Your task to perform on an android device: change timer sound Image 0: 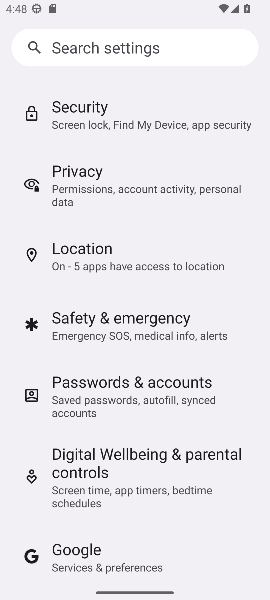
Step 0: press home button
Your task to perform on an android device: change timer sound Image 1: 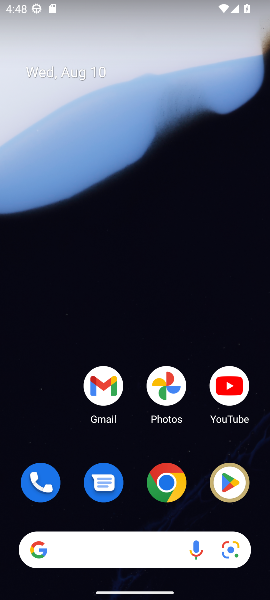
Step 1: drag from (48, 406) to (105, 27)
Your task to perform on an android device: change timer sound Image 2: 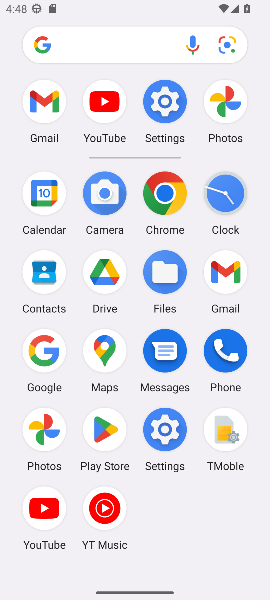
Step 2: click (228, 196)
Your task to perform on an android device: change timer sound Image 3: 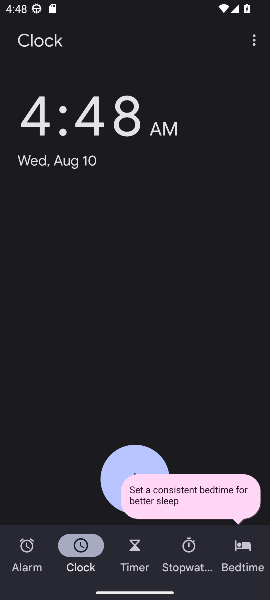
Step 3: click (256, 47)
Your task to perform on an android device: change timer sound Image 4: 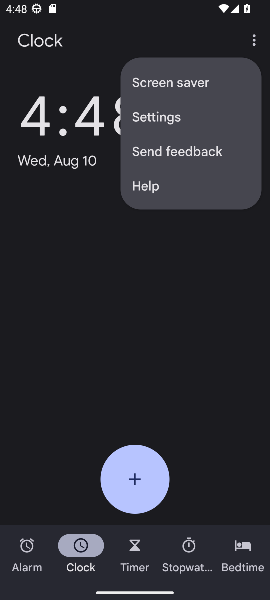
Step 4: click (184, 118)
Your task to perform on an android device: change timer sound Image 5: 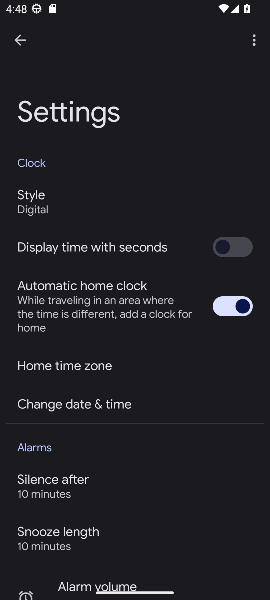
Step 5: drag from (116, 481) to (167, 57)
Your task to perform on an android device: change timer sound Image 6: 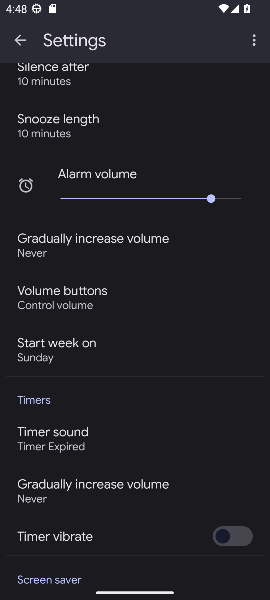
Step 6: click (65, 439)
Your task to perform on an android device: change timer sound Image 7: 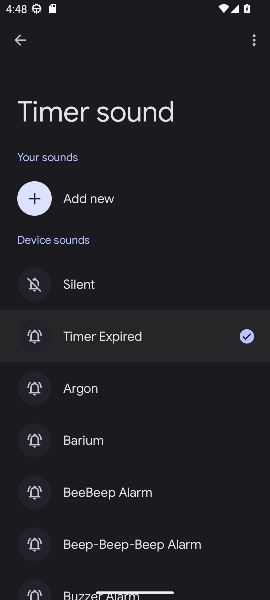
Step 7: click (83, 396)
Your task to perform on an android device: change timer sound Image 8: 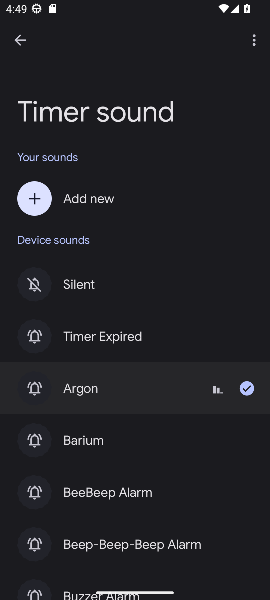
Step 8: task complete